Your task to perform on an android device: Search for seafood restaurants on Google Maps Image 0: 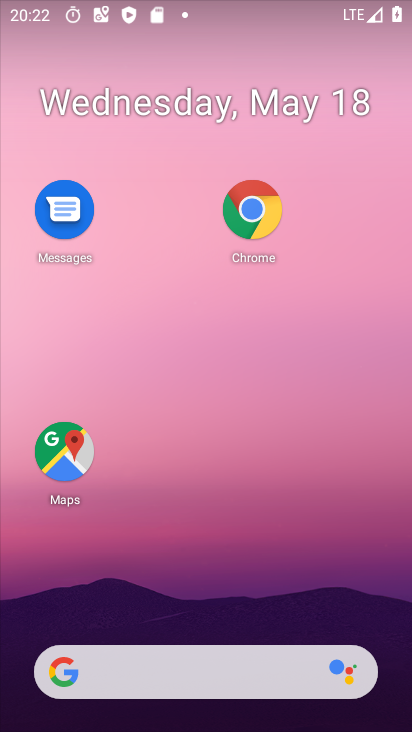
Step 0: click (65, 449)
Your task to perform on an android device: Search for seafood restaurants on Google Maps Image 1: 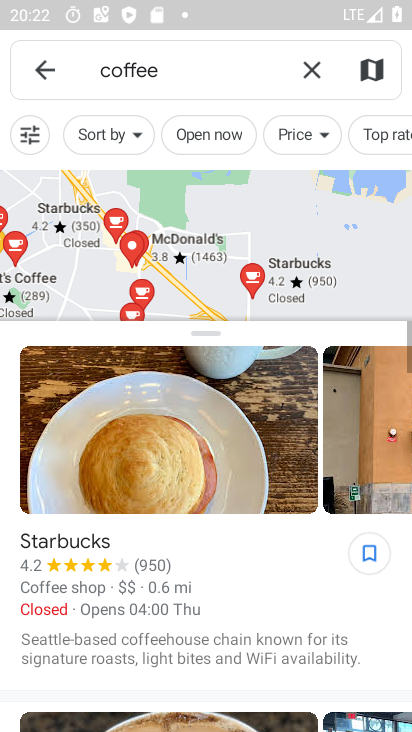
Step 1: click (317, 63)
Your task to perform on an android device: Search for seafood restaurants on Google Maps Image 2: 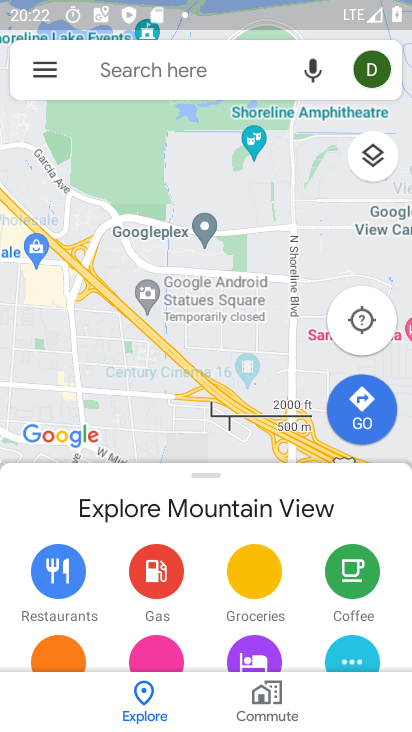
Step 2: click (73, 80)
Your task to perform on an android device: Search for seafood restaurants on Google Maps Image 3: 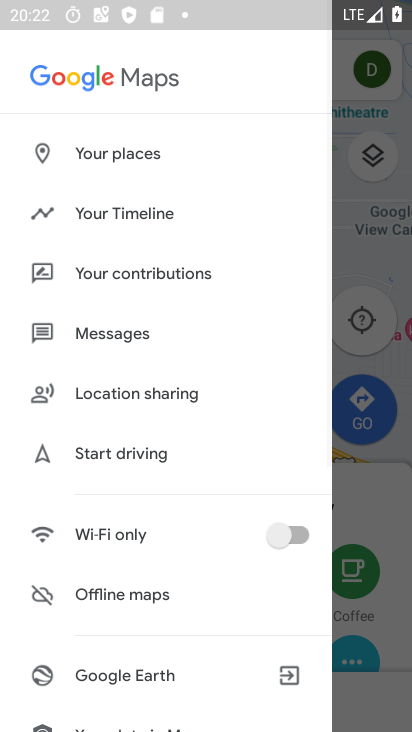
Step 3: click (332, 72)
Your task to perform on an android device: Search for seafood restaurants on Google Maps Image 4: 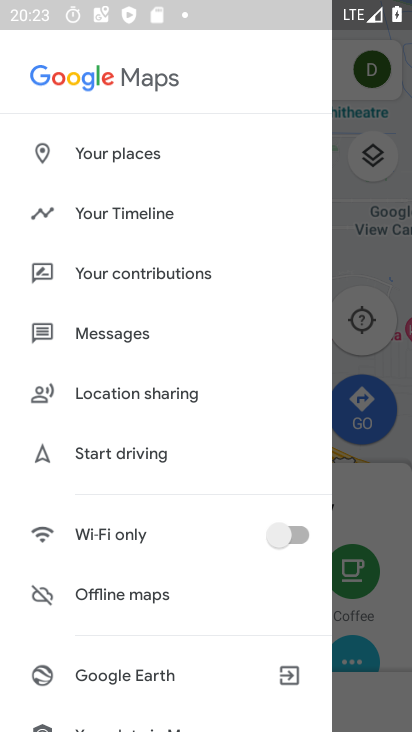
Step 4: click (341, 81)
Your task to perform on an android device: Search for seafood restaurants on Google Maps Image 5: 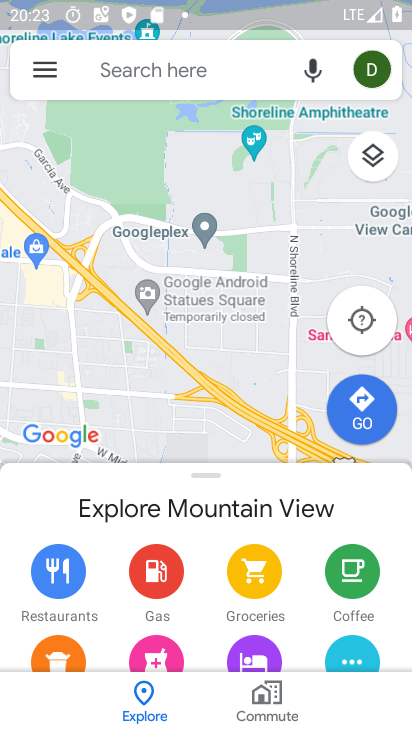
Step 5: click (218, 81)
Your task to perform on an android device: Search for seafood restaurants on Google Maps Image 6: 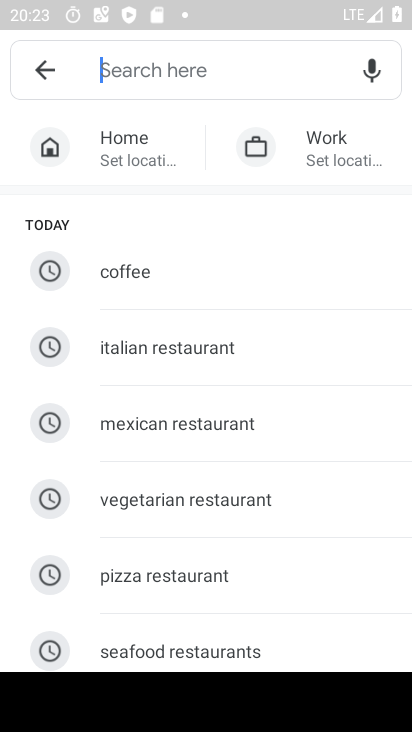
Step 6: click (146, 650)
Your task to perform on an android device: Search for seafood restaurants on Google Maps Image 7: 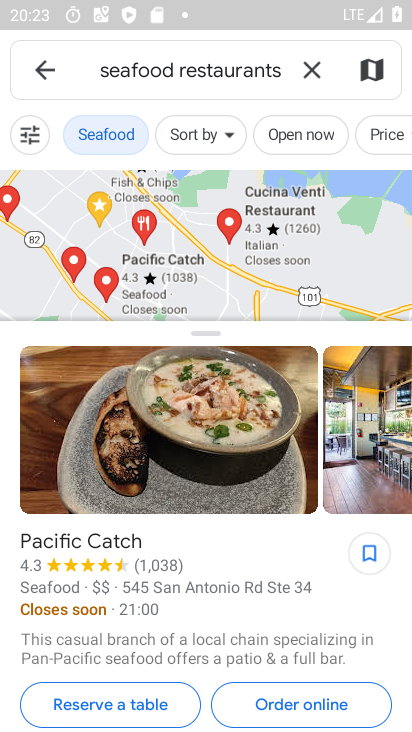
Step 7: task complete